Your task to perform on an android device: toggle improve location accuracy Image 0: 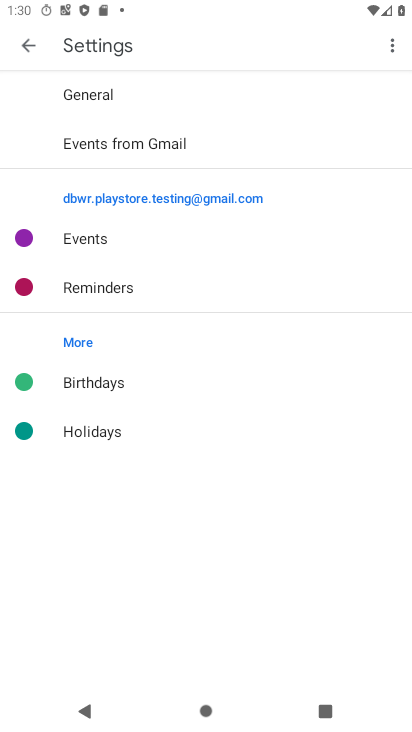
Step 0: press home button
Your task to perform on an android device: toggle improve location accuracy Image 1: 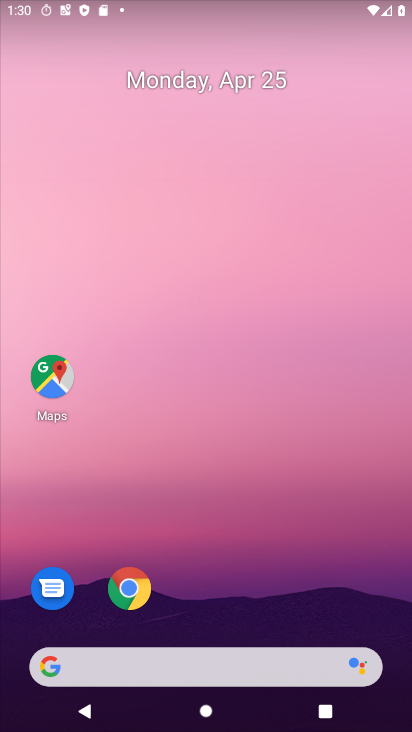
Step 1: drag from (240, 619) to (276, 183)
Your task to perform on an android device: toggle improve location accuracy Image 2: 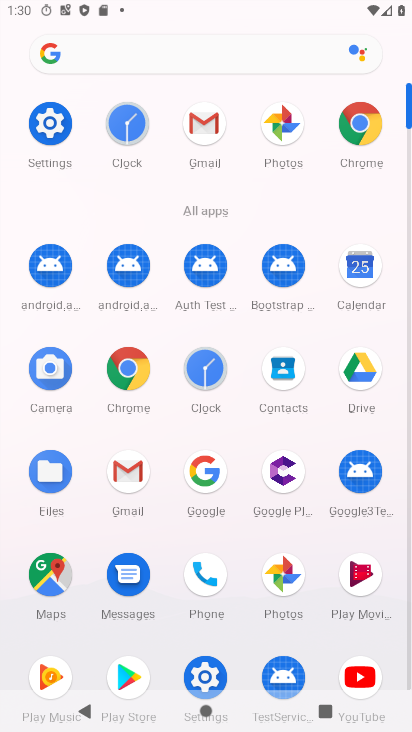
Step 2: click (55, 136)
Your task to perform on an android device: toggle improve location accuracy Image 3: 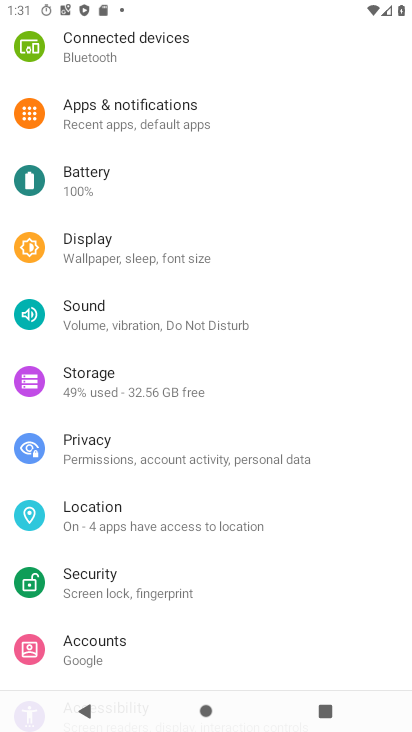
Step 3: drag from (197, 635) to (222, 314)
Your task to perform on an android device: toggle improve location accuracy Image 4: 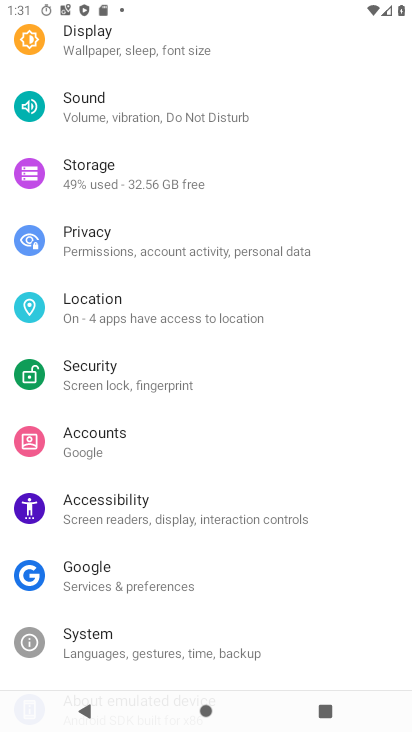
Step 4: click (156, 317)
Your task to perform on an android device: toggle improve location accuracy Image 5: 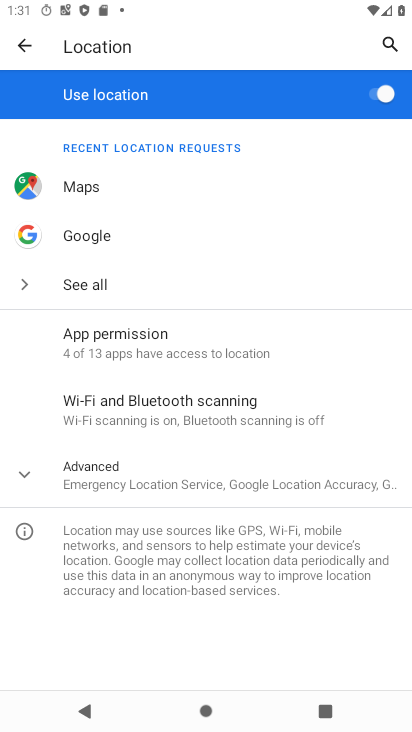
Step 5: click (144, 478)
Your task to perform on an android device: toggle improve location accuracy Image 6: 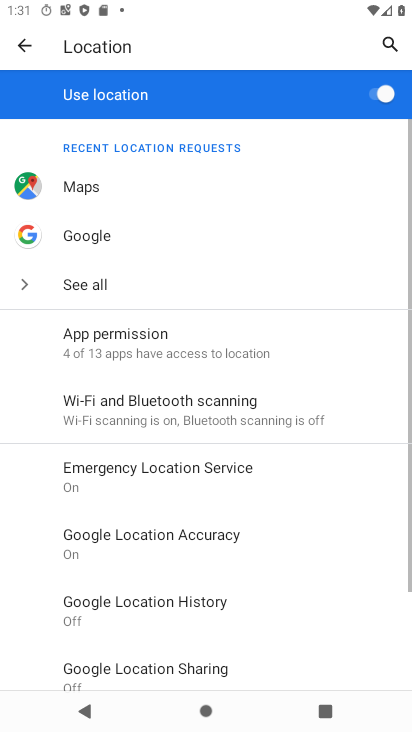
Step 6: drag from (170, 508) to (191, 352)
Your task to perform on an android device: toggle improve location accuracy Image 7: 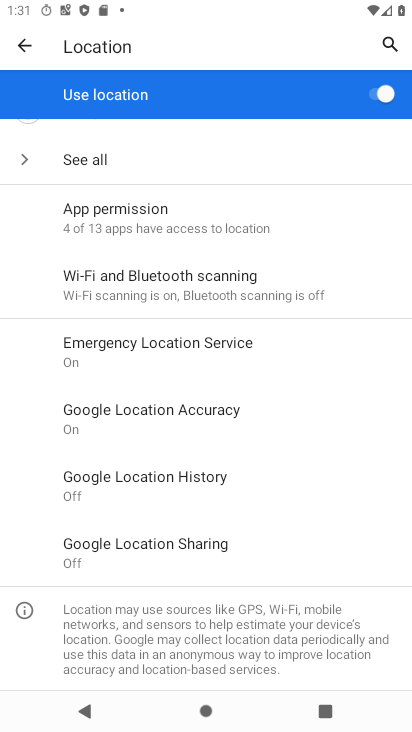
Step 7: click (177, 418)
Your task to perform on an android device: toggle improve location accuracy Image 8: 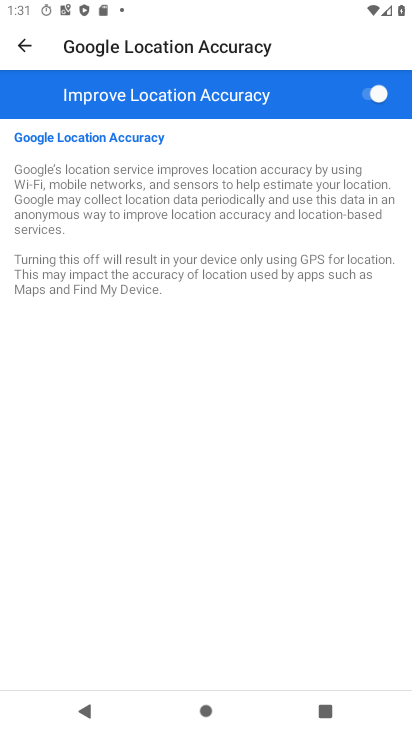
Step 8: click (377, 90)
Your task to perform on an android device: toggle improve location accuracy Image 9: 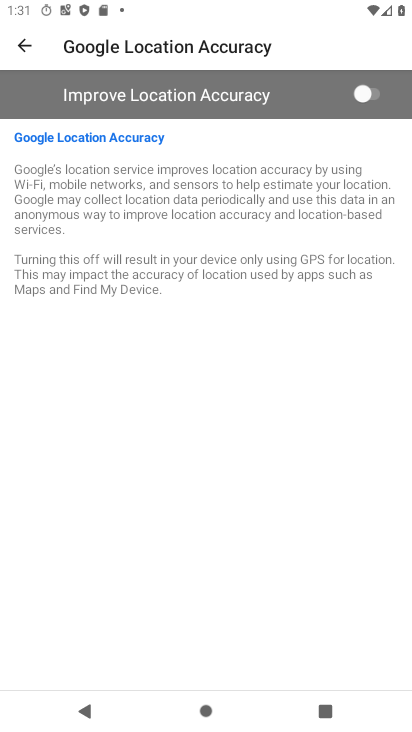
Step 9: task complete